Your task to perform on an android device: Show me the alarms in the clock app Image 0: 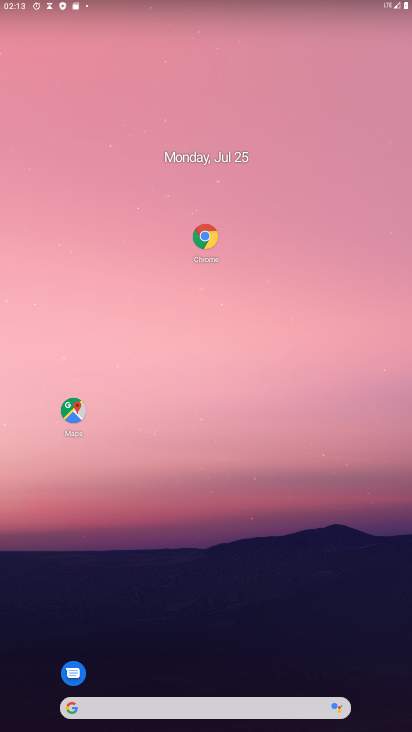
Step 0: drag from (296, 661) to (357, 118)
Your task to perform on an android device: Show me the alarms in the clock app Image 1: 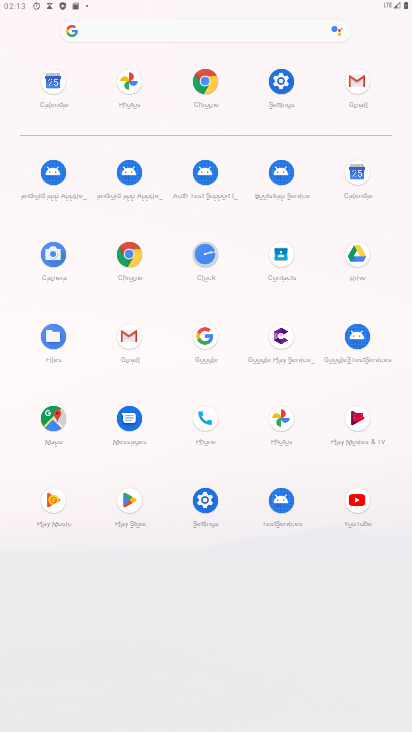
Step 1: click (200, 255)
Your task to perform on an android device: Show me the alarms in the clock app Image 2: 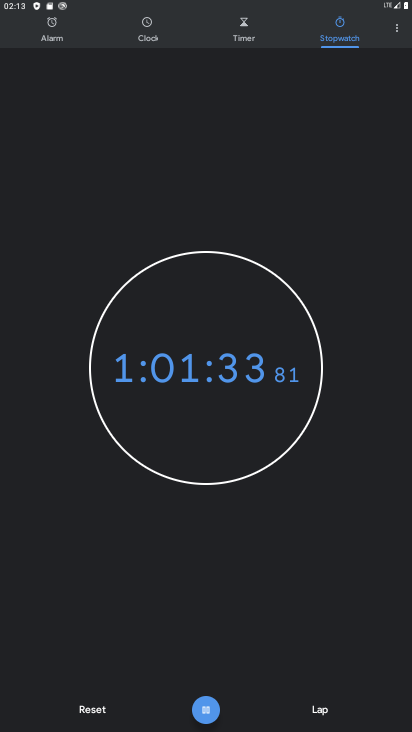
Step 2: click (59, 32)
Your task to perform on an android device: Show me the alarms in the clock app Image 3: 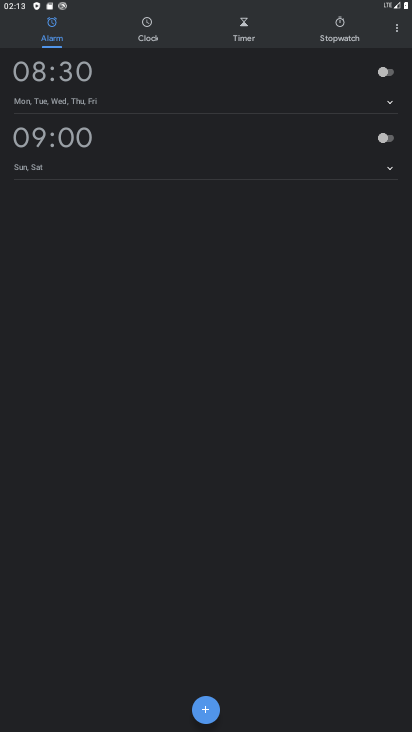
Step 3: click (388, 76)
Your task to perform on an android device: Show me the alarms in the clock app Image 4: 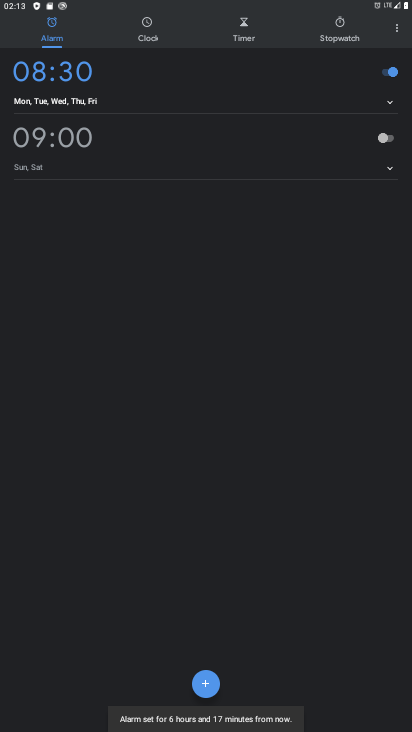
Step 4: task complete